Your task to perform on an android device: Go to Wikipedia Image 0: 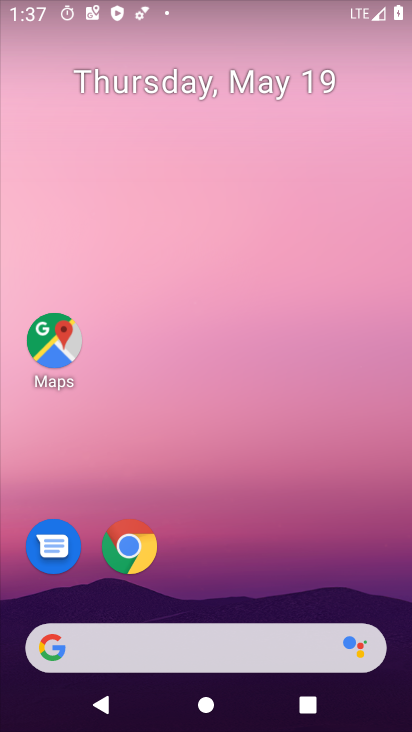
Step 0: click (132, 549)
Your task to perform on an android device: Go to Wikipedia Image 1: 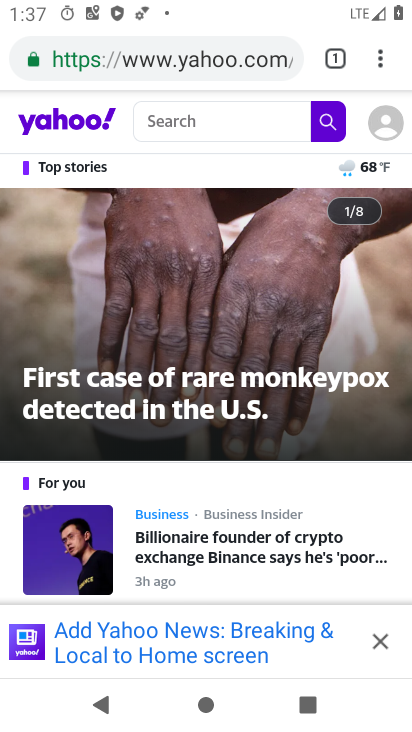
Step 1: click (339, 63)
Your task to perform on an android device: Go to Wikipedia Image 2: 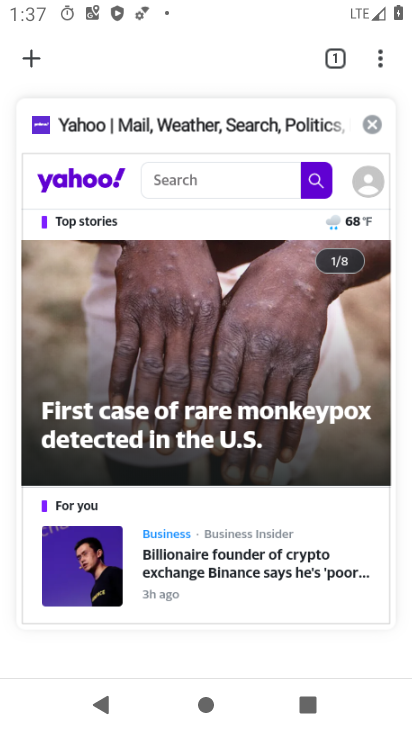
Step 2: click (34, 60)
Your task to perform on an android device: Go to Wikipedia Image 3: 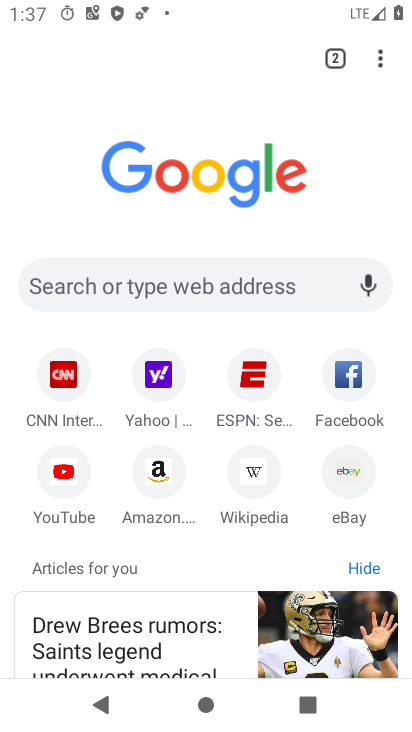
Step 3: click (250, 468)
Your task to perform on an android device: Go to Wikipedia Image 4: 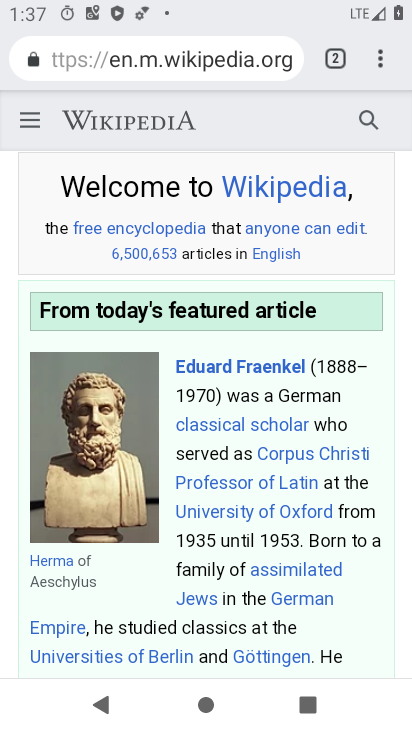
Step 4: task complete